Your task to perform on an android device: Go to accessibility settings Image 0: 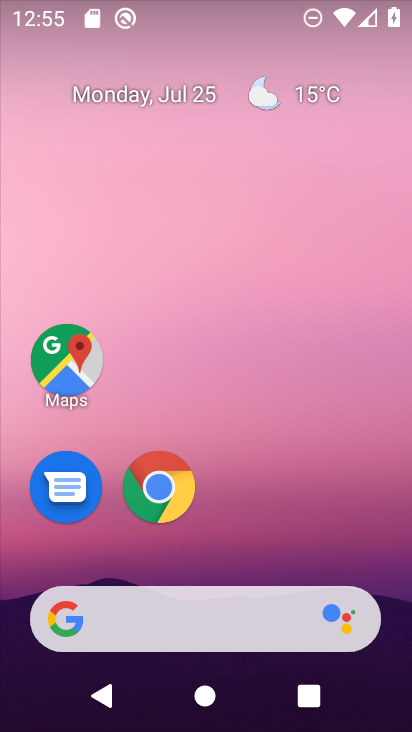
Step 0: drag from (251, 471) to (309, 0)
Your task to perform on an android device: Go to accessibility settings Image 1: 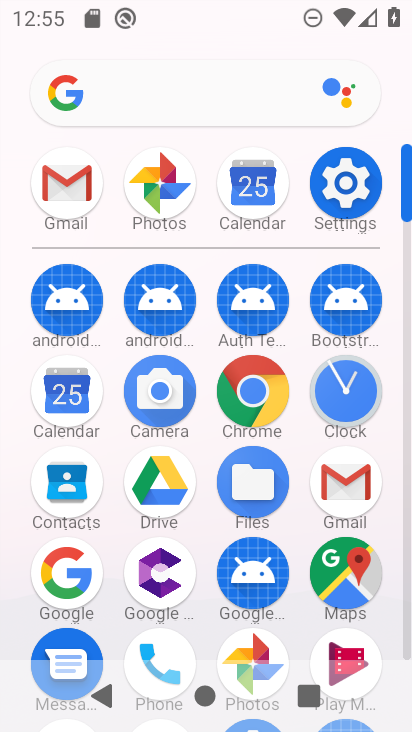
Step 1: click (337, 190)
Your task to perform on an android device: Go to accessibility settings Image 2: 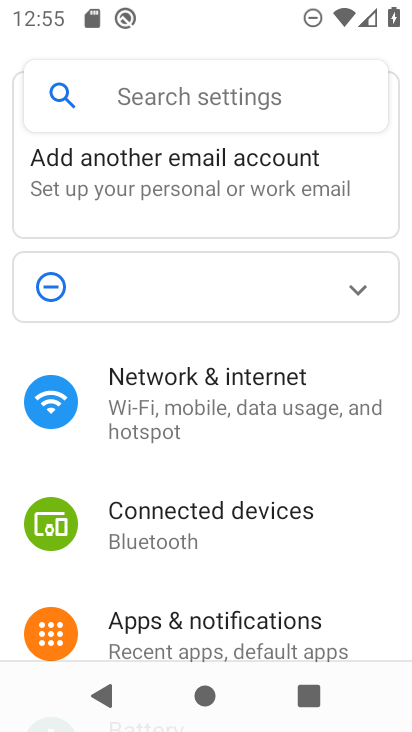
Step 2: drag from (185, 624) to (287, 9)
Your task to perform on an android device: Go to accessibility settings Image 3: 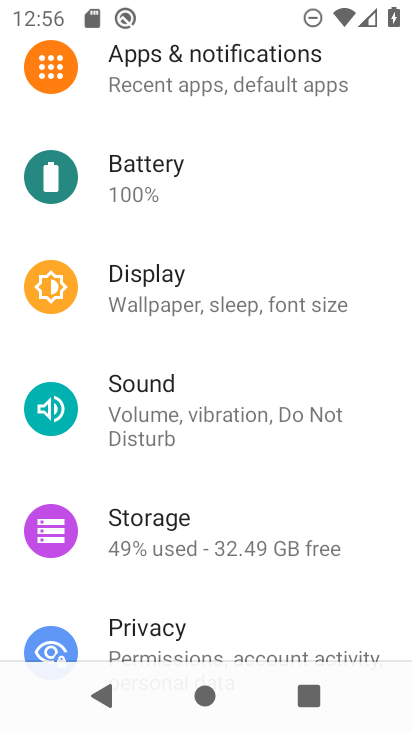
Step 3: drag from (154, 633) to (278, 52)
Your task to perform on an android device: Go to accessibility settings Image 4: 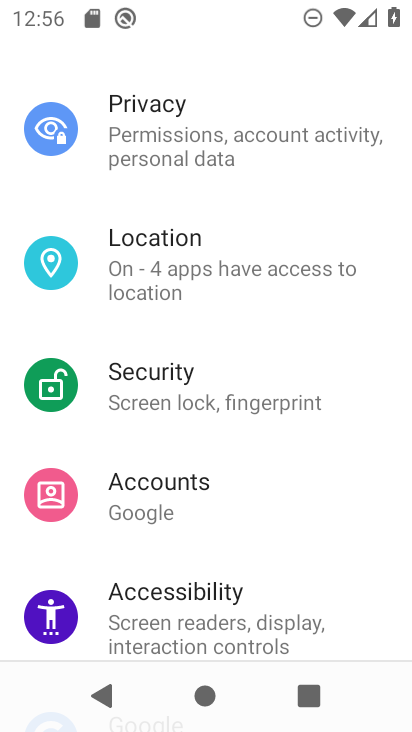
Step 4: click (170, 593)
Your task to perform on an android device: Go to accessibility settings Image 5: 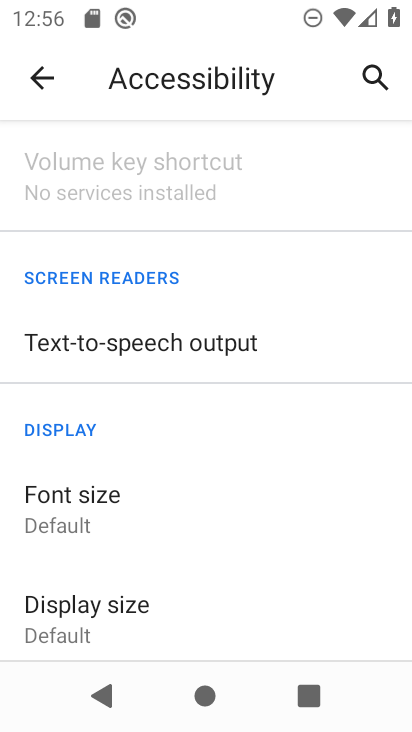
Step 5: task complete